Your task to perform on an android device: Open sound settings Image 0: 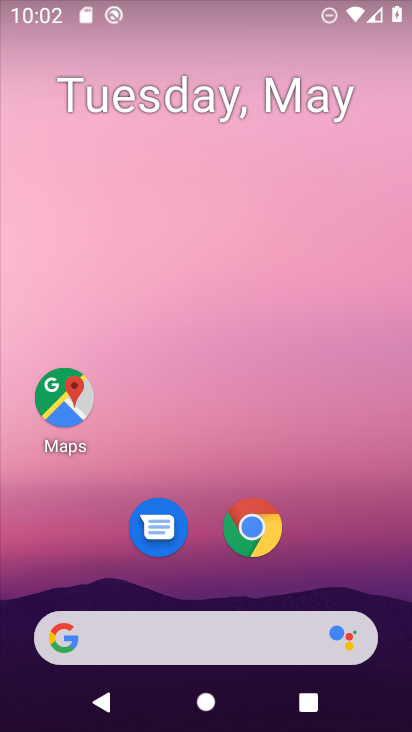
Step 0: drag from (328, 559) to (203, 168)
Your task to perform on an android device: Open sound settings Image 1: 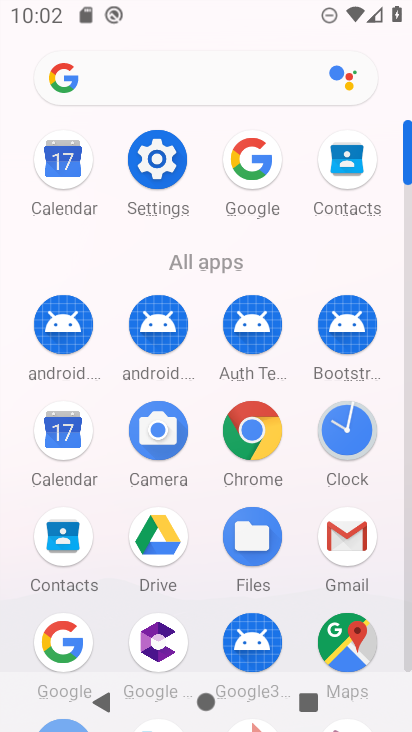
Step 1: click (155, 160)
Your task to perform on an android device: Open sound settings Image 2: 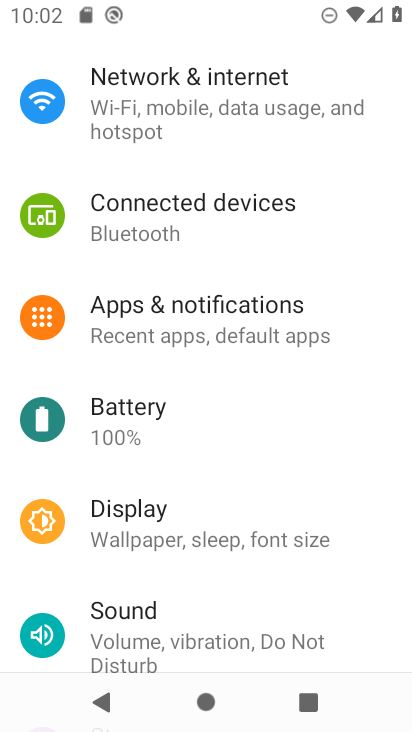
Step 2: drag from (191, 400) to (261, 299)
Your task to perform on an android device: Open sound settings Image 3: 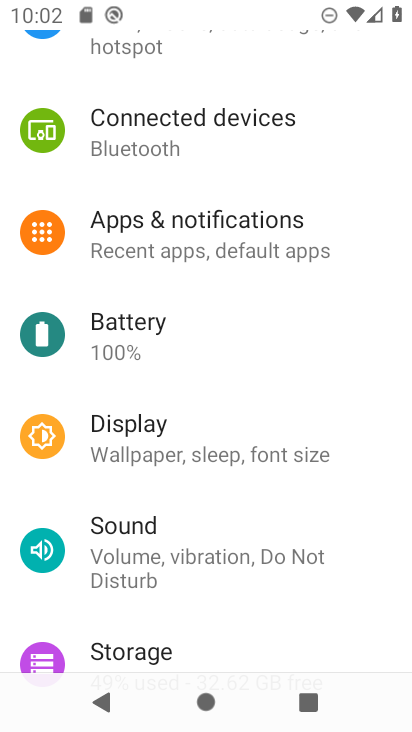
Step 3: click (144, 526)
Your task to perform on an android device: Open sound settings Image 4: 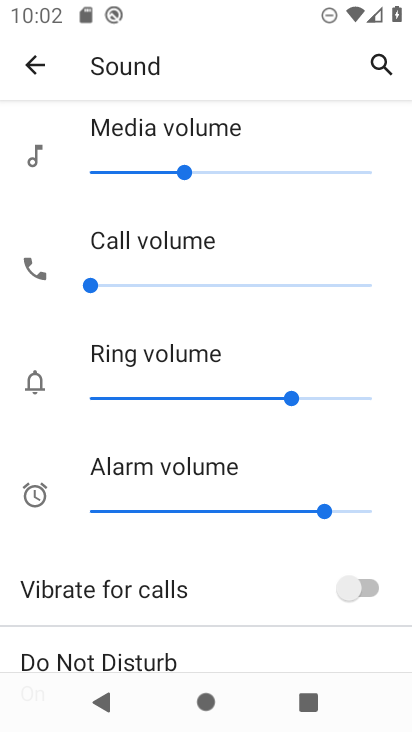
Step 4: task complete